Your task to perform on an android device: open sync settings in chrome Image 0: 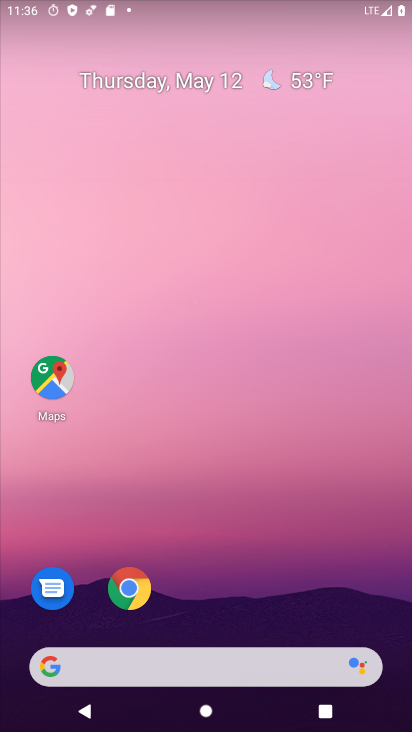
Step 0: click (130, 590)
Your task to perform on an android device: open sync settings in chrome Image 1: 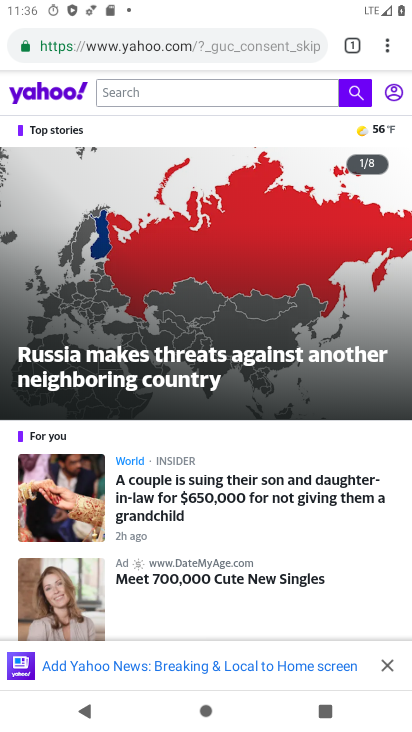
Step 1: drag from (389, 43) to (220, 552)
Your task to perform on an android device: open sync settings in chrome Image 2: 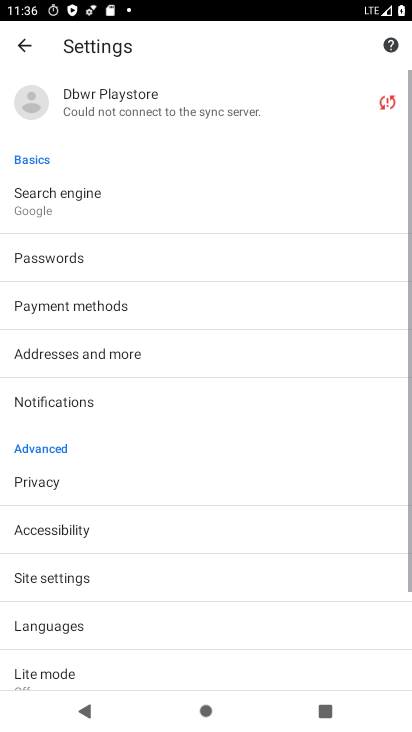
Step 2: click (95, 104)
Your task to perform on an android device: open sync settings in chrome Image 3: 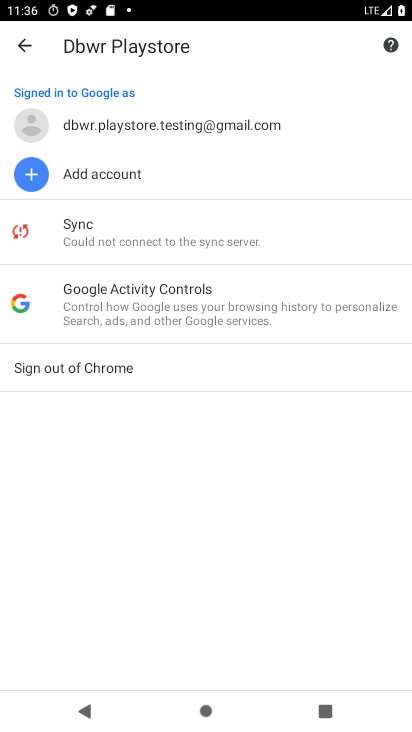
Step 3: click (173, 226)
Your task to perform on an android device: open sync settings in chrome Image 4: 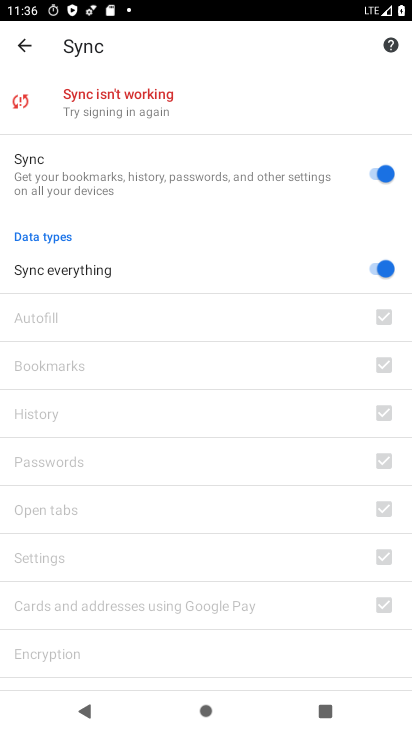
Step 4: task complete